Your task to perform on an android device: turn off notifications settings in the gmail app Image 0: 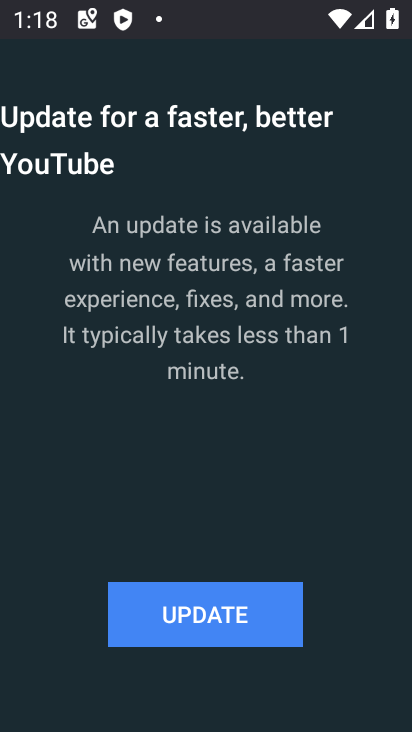
Step 0: press back button
Your task to perform on an android device: turn off notifications settings in the gmail app Image 1: 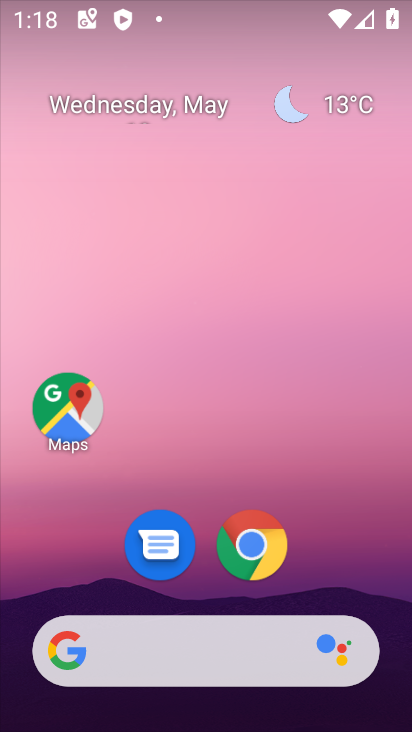
Step 1: drag from (386, 569) to (363, 73)
Your task to perform on an android device: turn off notifications settings in the gmail app Image 2: 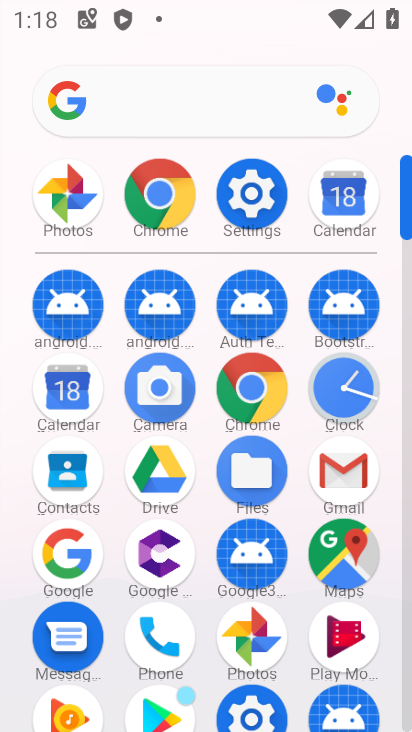
Step 2: click (331, 471)
Your task to perform on an android device: turn off notifications settings in the gmail app Image 3: 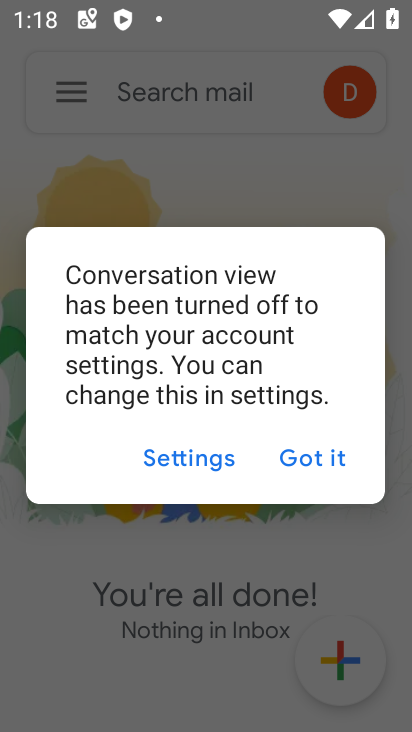
Step 3: click (288, 454)
Your task to perform on an android device: turn off notifications settings in the gmail app Image 4: 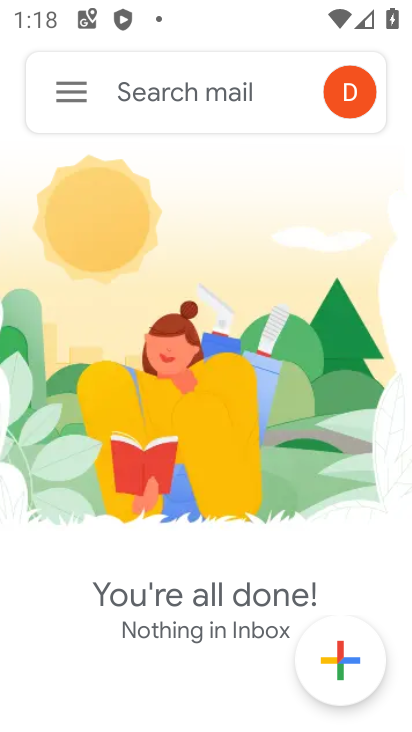
Step 4: click (65, 85)
Your task to perform on an android device: turn off notifications settings in the gmail app Image 5: 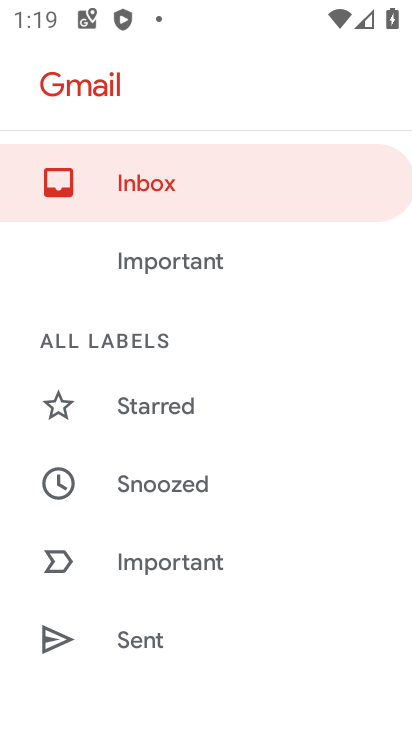
Step 5: drag from (224, 444) to (200, 126)
Your task to perform on an android device: turn off notifications settings in the gmail app Image 6: 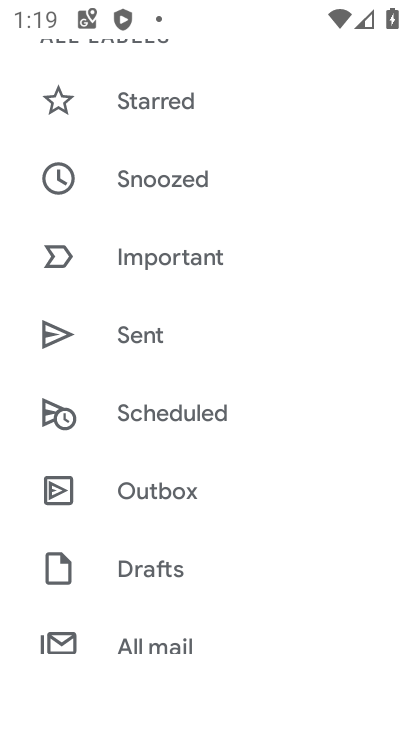
Step 6: drag from (226, 581) to (198, 171)
Your task to perform on an android device: turn off notifications settings in the gmail app Image 7: 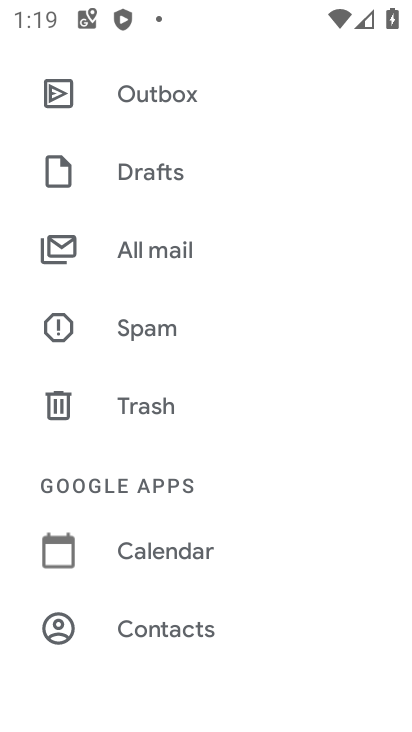
Step 7: drag from (150, 614) to (162, 274)
Your task to perform on an android device: turn off notifications settings in the gmail app Image 8: 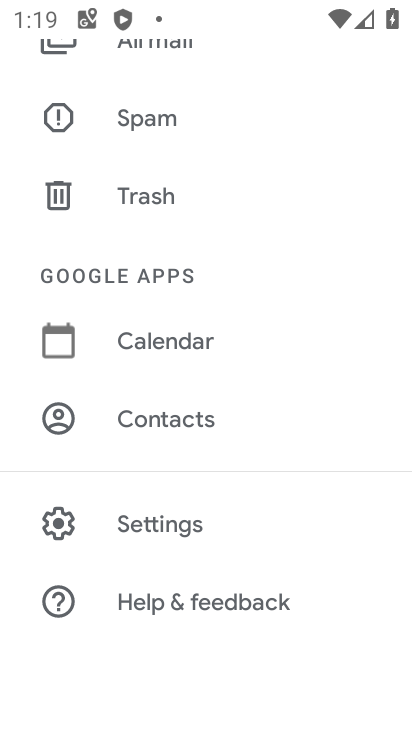
Step 8: click (200, 524)
Your task to perform on an android device: turn off notifications settings in the gmail app Image 9: 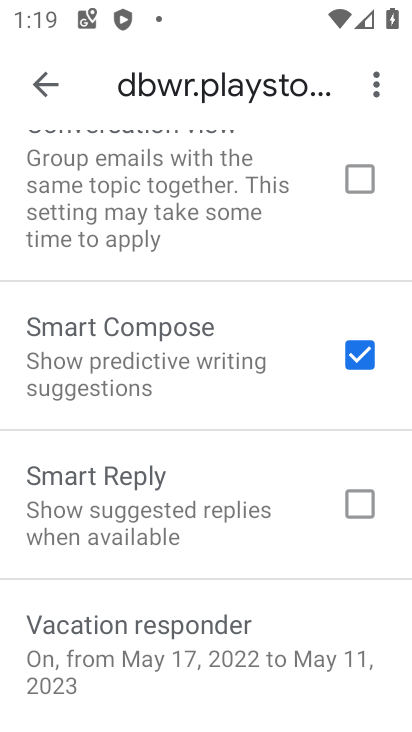
Step 9: drag from (214, 292) to (200, 560)
Your task to perform on an android device: turn off notifications settings in the gmail app Image 10: 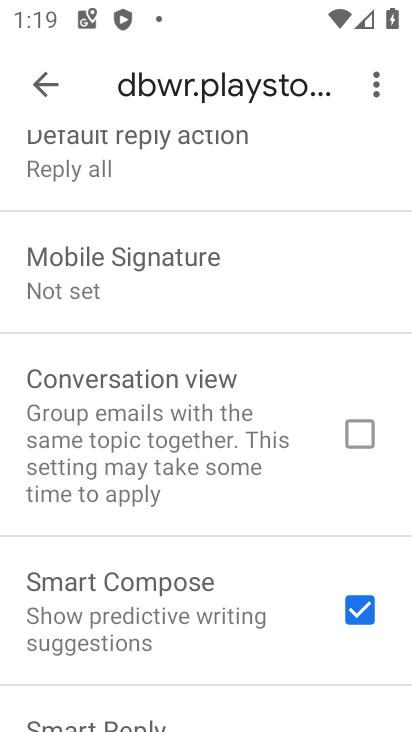
Step 10: drag from (135, 227) to (184, 684)
Your task to perform on an android device: turn off notifications settings in the gmail app Image 11: 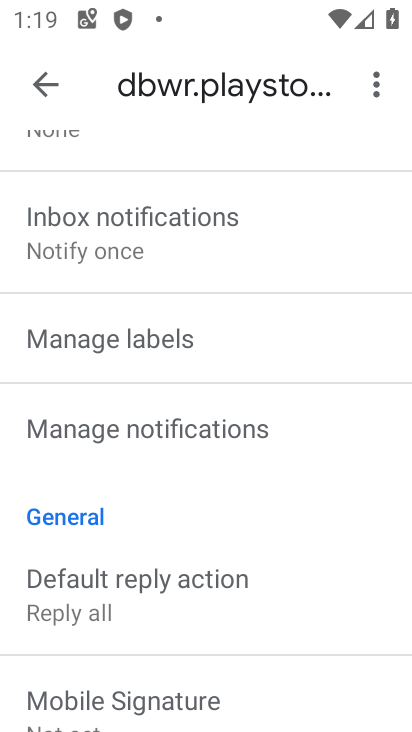
Step 11: click (155, 438)
Your task to perform on an android device: turn off notifications settings in the gmail app Image 12: 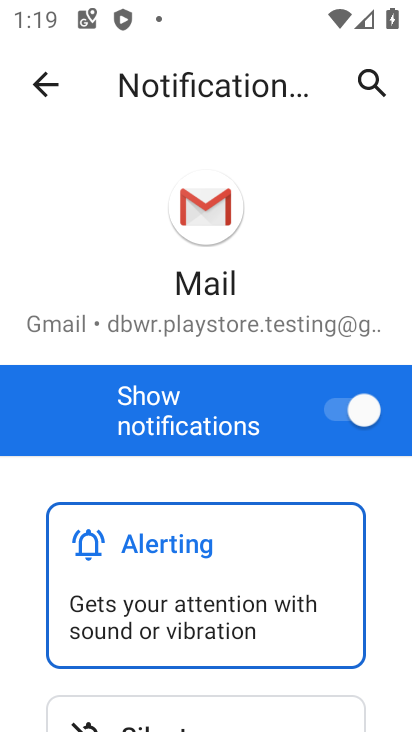
Step 12: click (354, 413)
Your task to perform on an android device: turn off notifications settings in the gmail app Image 13: 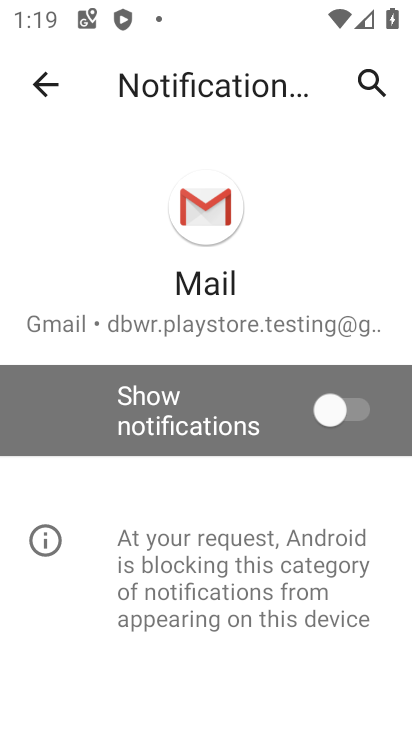
Step 13: click (61, 95)
Your task to perform on an android device: turn off notifications settings in the gmail app Image 14: 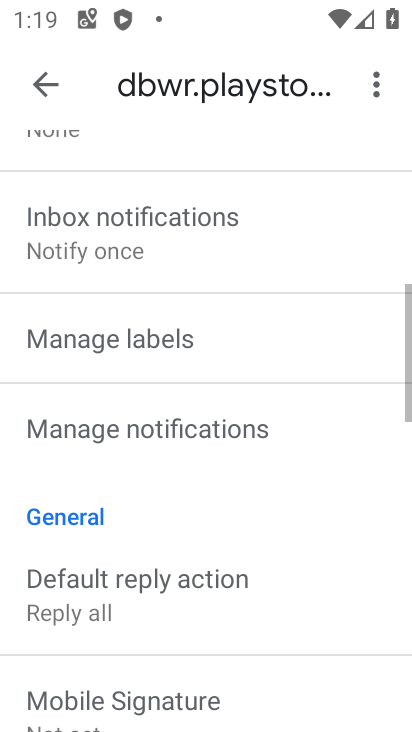
Step 14: drag from (165, 253) to (188, 511)
Your task to perform on an android device: turn off notifications settings in the gmail app Image 15: 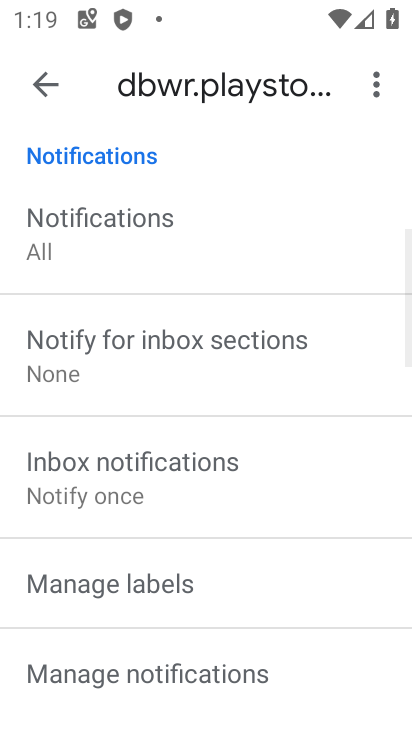
Step 15: click (172, 244)
Your task to perform on an android device: turn off notifications settings in the gmail app Image 16: 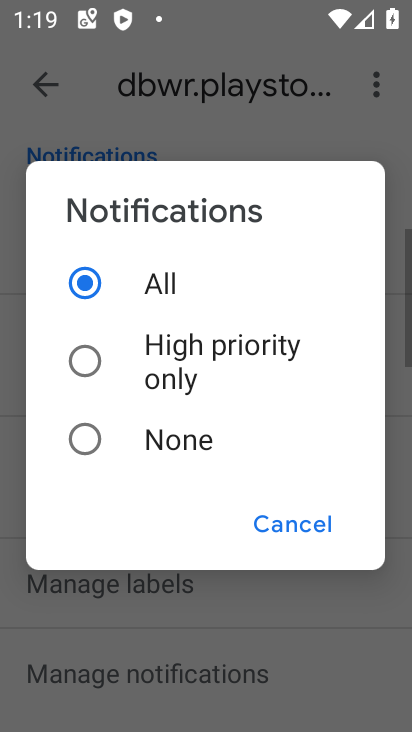
Step 16: click (154, 449)
Your task to perform on an android device: turn off notifications settings in the gmail app Image 17: 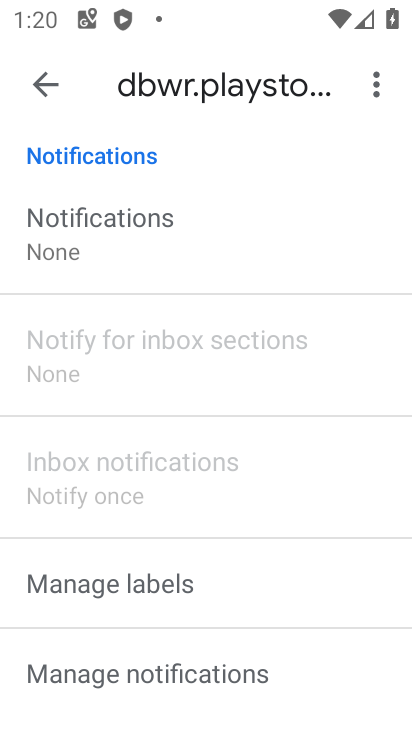
Step 17: task complete